Your task to perform on an android device: turn off translation in the chrome app Image 0: 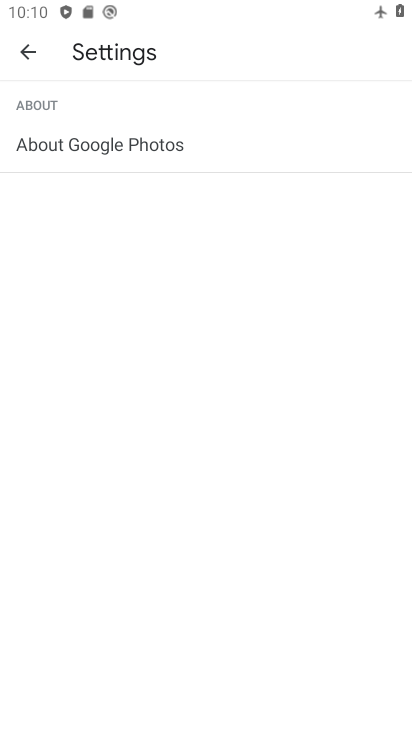
Step 0: press home button
Your task to perform on an android device: turn off translation in the chrome app Image 1: 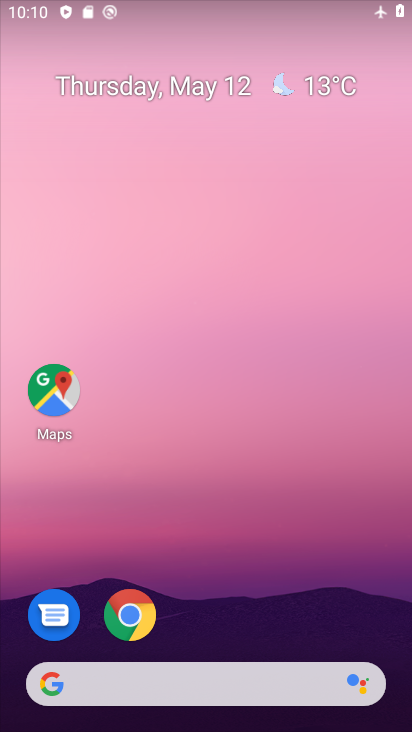
Step 1: drag from (339, 543) to (338, 5)
Your task to perform on an android device: turn off translation in the chrome app Image 2: 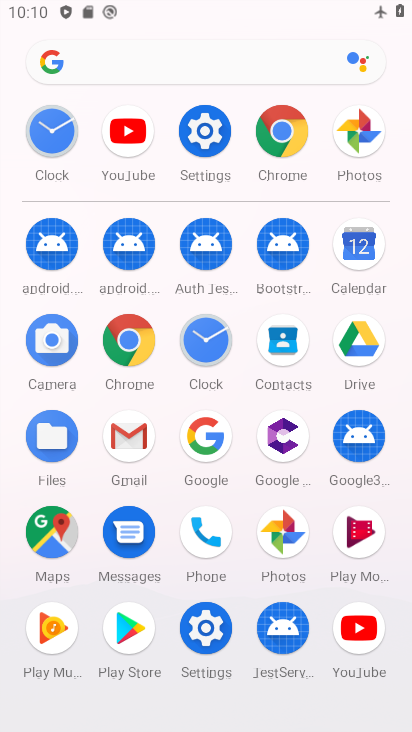
Step 2: click (284, 139)
Your task to perform on an android device: turn off translation in the chrome app Image 3: 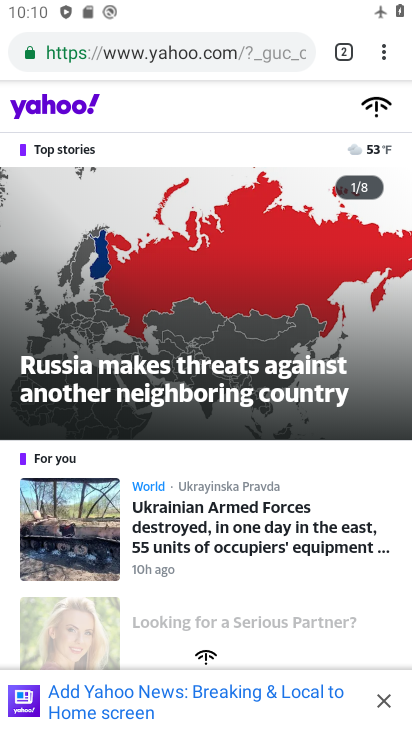
Step 3: drag from (385, 51) to (254, 581)
Your task to perform on an android device: turn off translation in the chrome app Image 4: 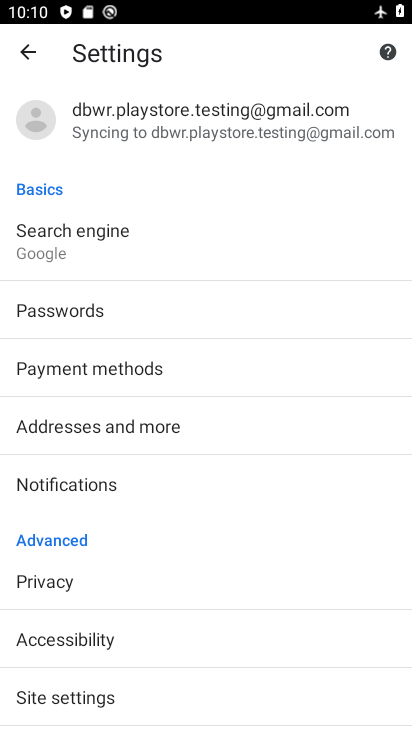
Step 4: drag from (95, 654) to (224, 143)
Your task to perform on an android device: turn off translation in the chrome app Image 5: 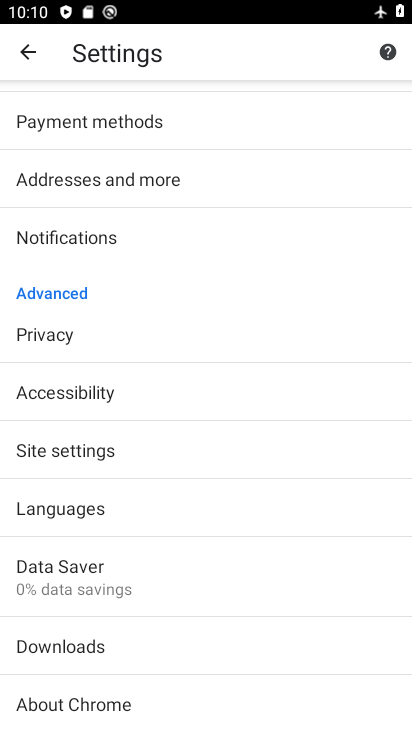
Step 5: click (120, 518)
Your task to perform on an android device: turn off translation in the chrome app Image 6: 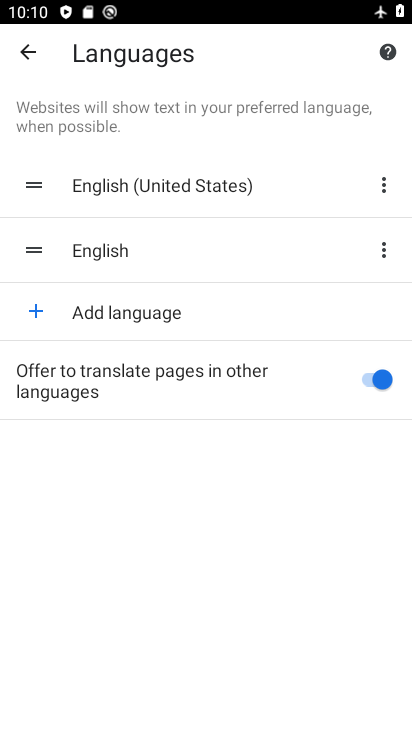
Step 6: click (383, 398)
Your task to perform on an android device: turn off translation in the chrome app Image 7: 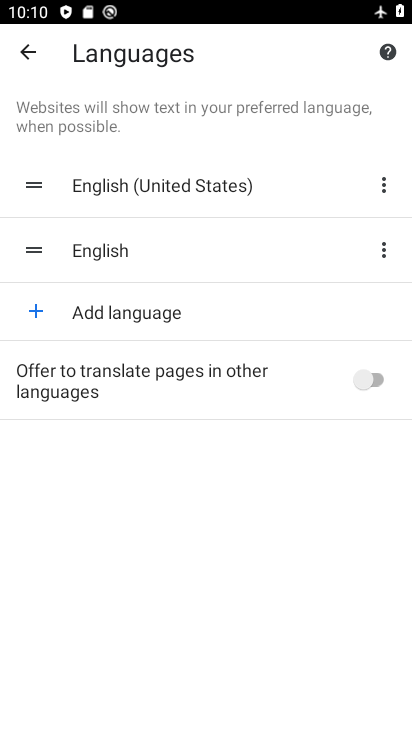
Step 7: task complete